Your task to perform on an android device: turn off location history Image 0: 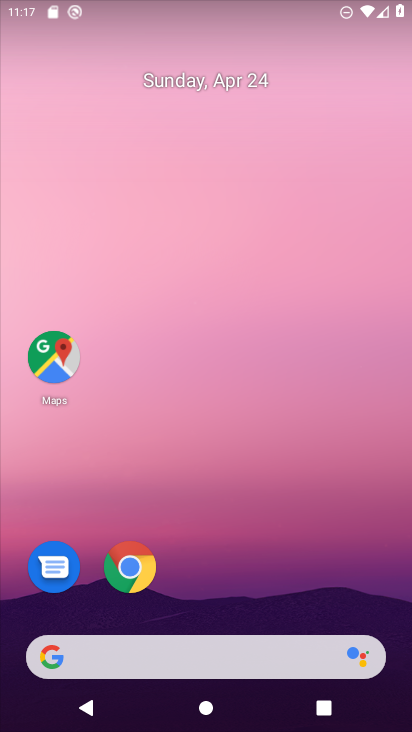
Step 0: drag from (337, 669) to (381, 73)
Your task to perform on an android device: turn off location history Image 1: 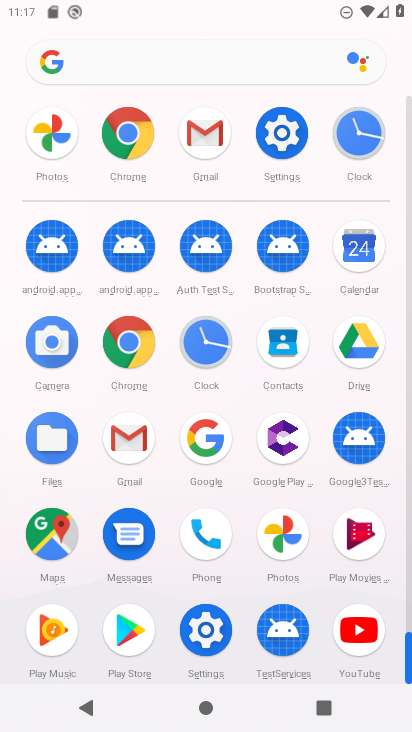
Step 1: click (197, 636)
Your task to perform on an android device: turn off location history Image 2: 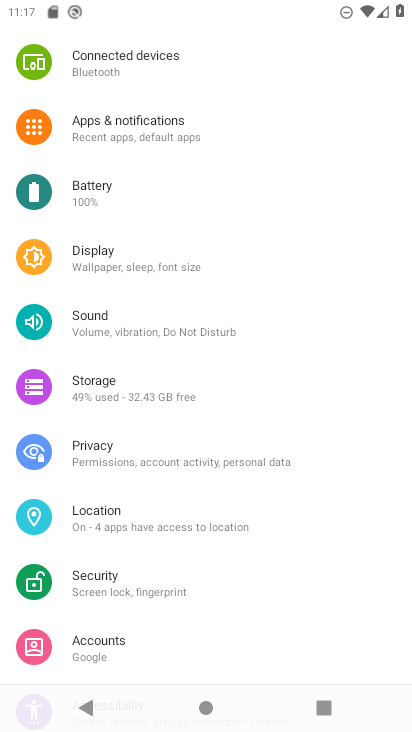
Step 2: drag from (205, 565) to (215, 603)
Your task to perform on an android device: turn off location history Image 3: 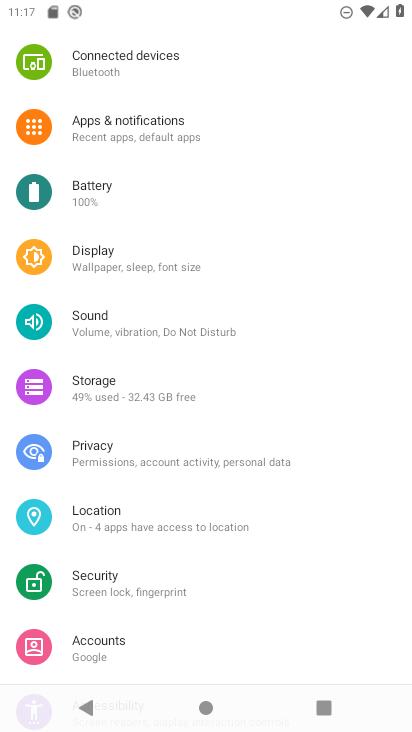
Step 3: click (176, 527)
Your task to perform on an android device: turn off location history Image 4: 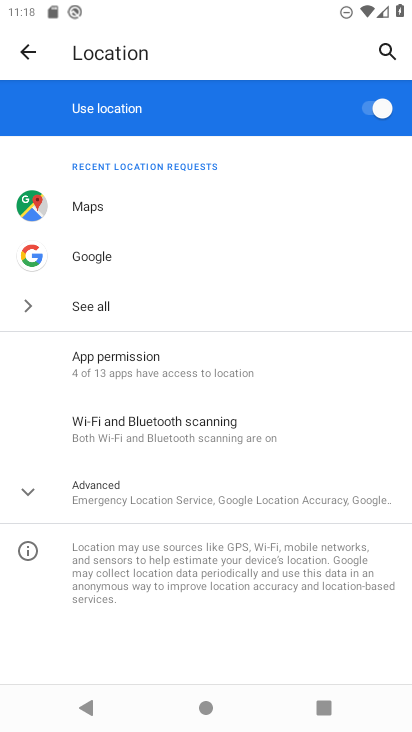
Step 4: click (186, 493)
Your task to perform on an android device: turn off location history Image 5: 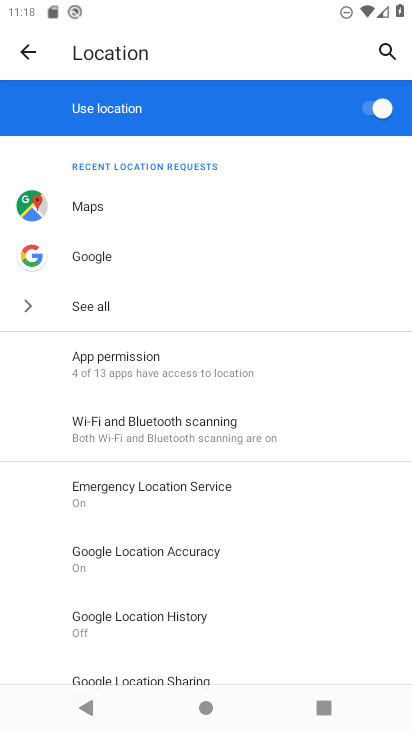
Step 5: click (116, 622)
Your task to perform on an android device: turn off location history Image 6: 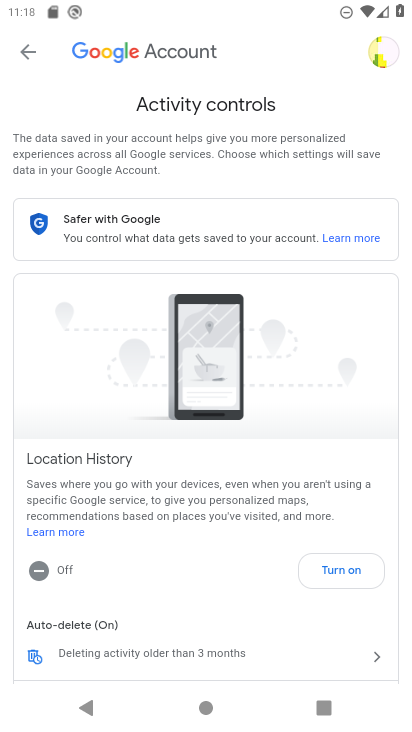
Step 6: task complete